Your task to perform on an android device: Open Chrome and go to settings Image 0: 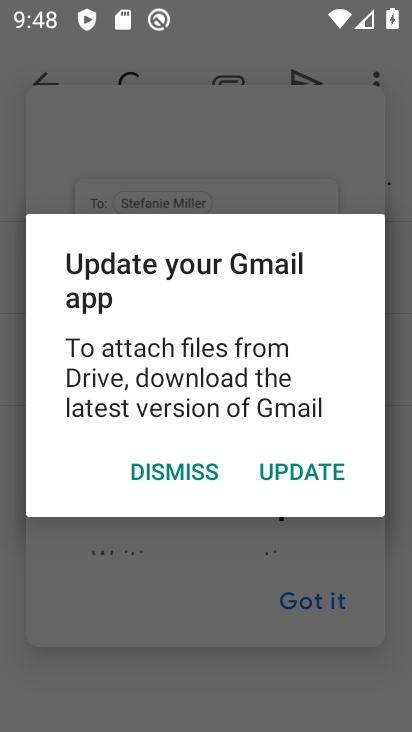
Step 0: press home button
Your task to perform on an android device: Open Chrome and go to settings Image 1: 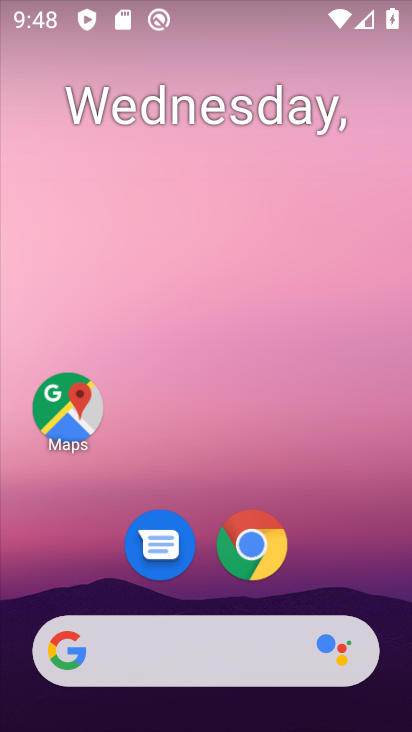
Step 1: click (267, 543)
Your task to perform on an android device: Open Chrome and go to settings Image 2: 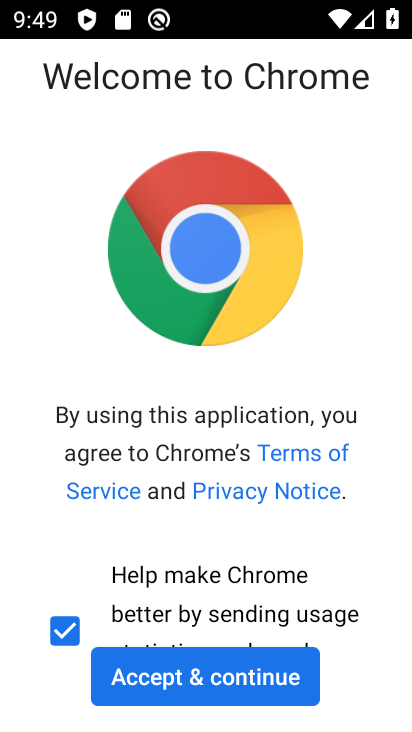
Step 2: click (194, 670)
Your task to perform on an android device: Open Chrome and go to settings Image 3: 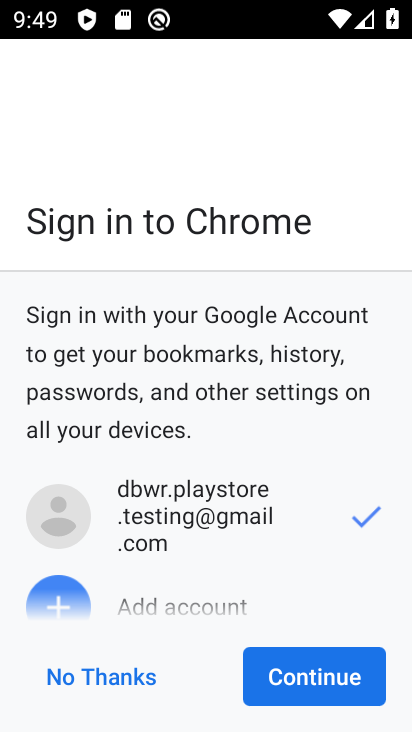
Step 3: click (322, 670)
Your task to perform on an android device: Open Chrome and go to settings Image 4: 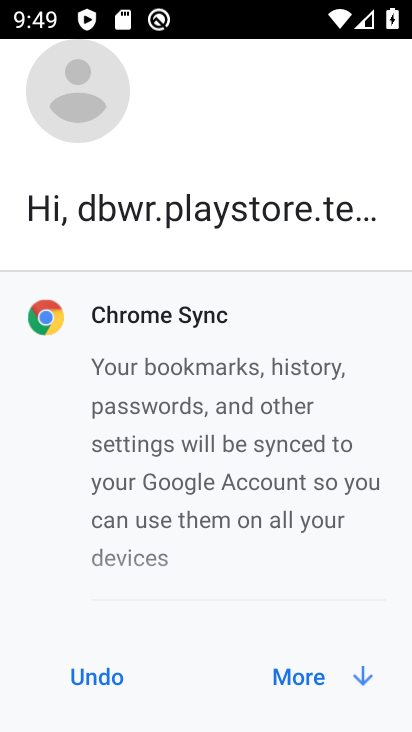
Step 4: click (331, 672)
Your task to perform on an android device: Open Chrome and go to settings Image 5: 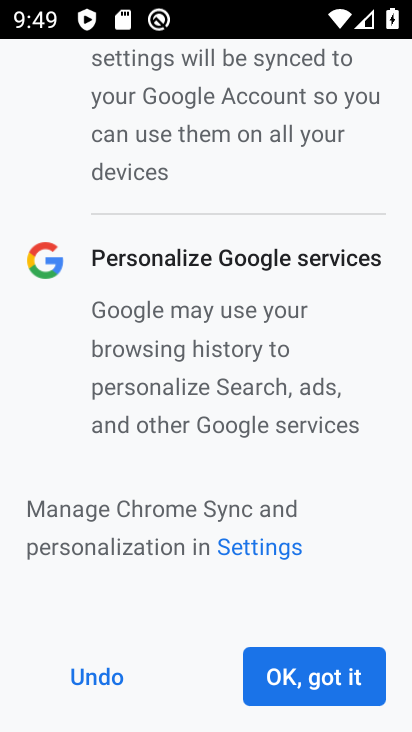
Step 5: click (331, 672)
Your task to perform on an android device: Open Chrome and go to settings Image 6: 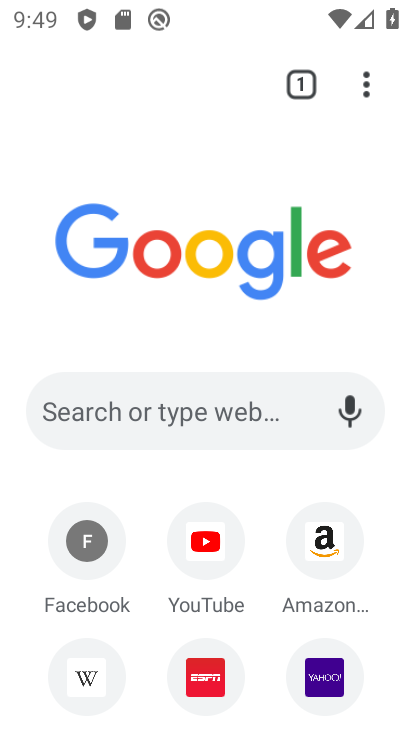
Step 6: click (369, 77)
Your task to perform on an android device: Open Chrome and go to settings Image 7: 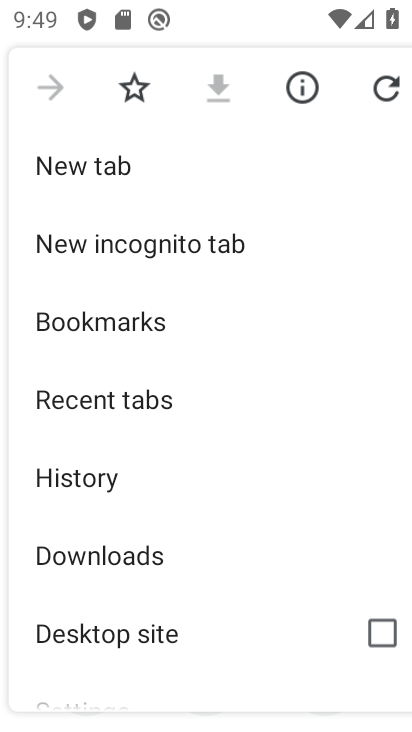
Step 7: drag from (199, 561) to (155, 157)
Your task to perform on an android device: Open Chrome and go to settings Image 8: 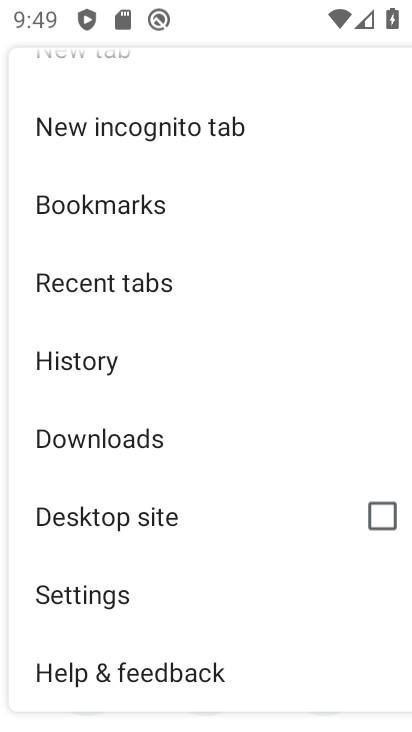
Step 8: click (102, 587)
Your task to perform on an android device: Open Chrome and go to settings Image 9: 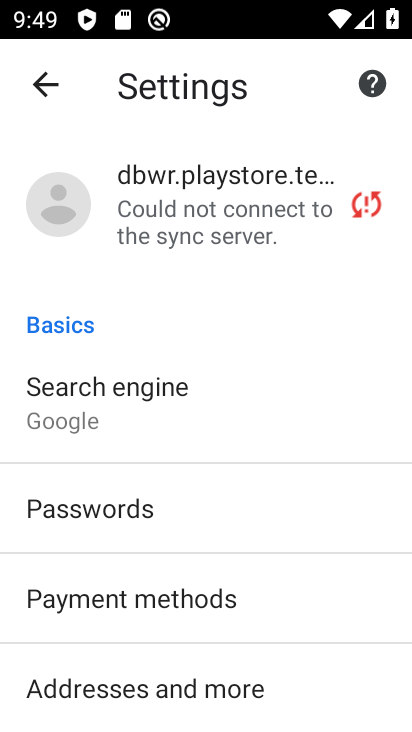
Step 9: task complete